Your task to perform on an android device: open wifi settings Image 0: 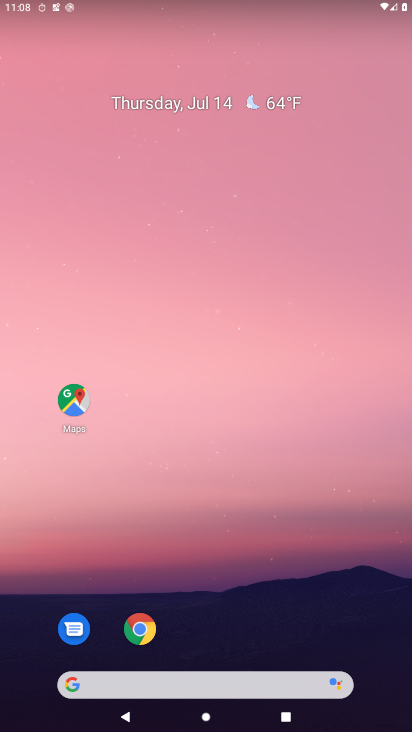
Step 0: drag from (249, 652) to (259, 222)
Your task to perform on an android device: open wifi settings Image 1: 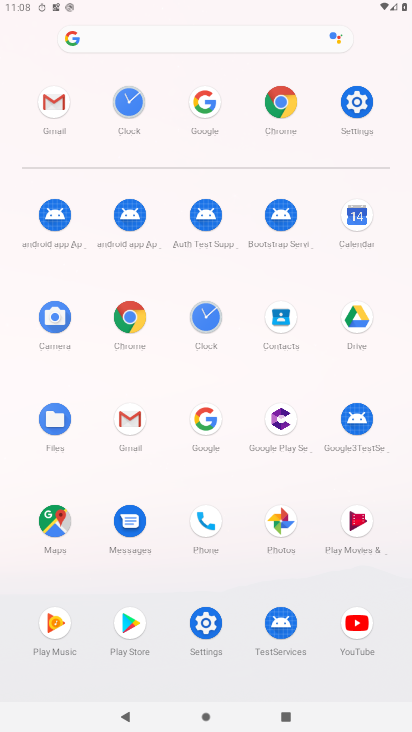
Step 1: click (363, 102)
Your task to perform on an android device: open wifi settings Image 2: 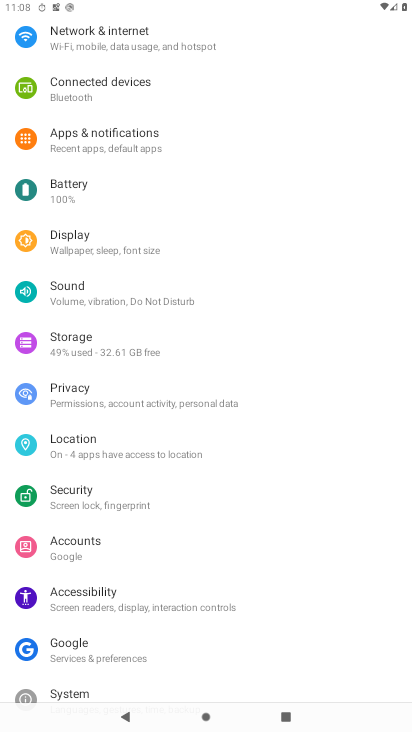
Step 2: click (92, 37)
Your task to perform on an android device: open wifi settings Image 3: 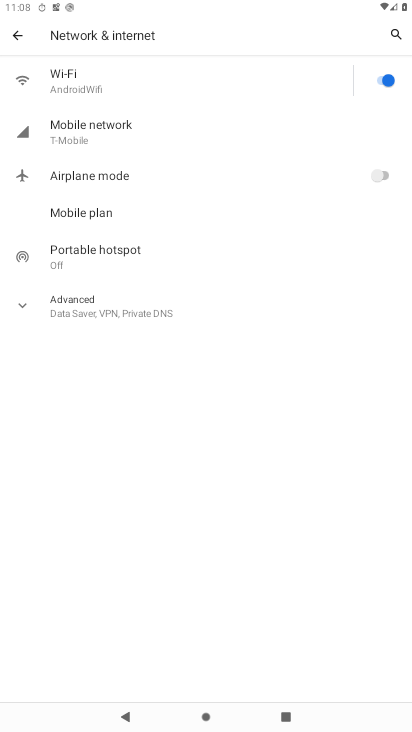
Step 3: click (116, 82)
Your task to perform on an android device: open wifi settings Image 4: 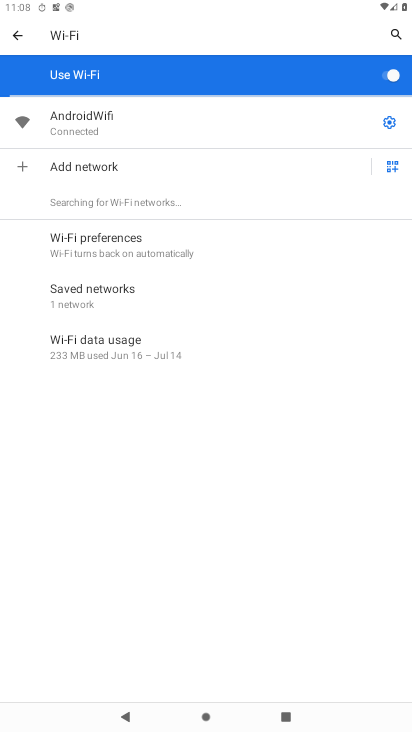
Step 4: click (395, 120)
Your task to perform on an android device: open wifi settings Image 5: 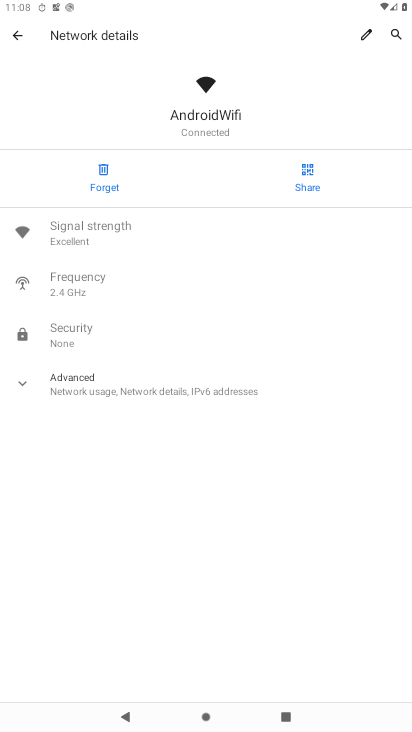
Step 5: click (136, 400)
Your task to perform on an android device: open wifi settings Image 6: 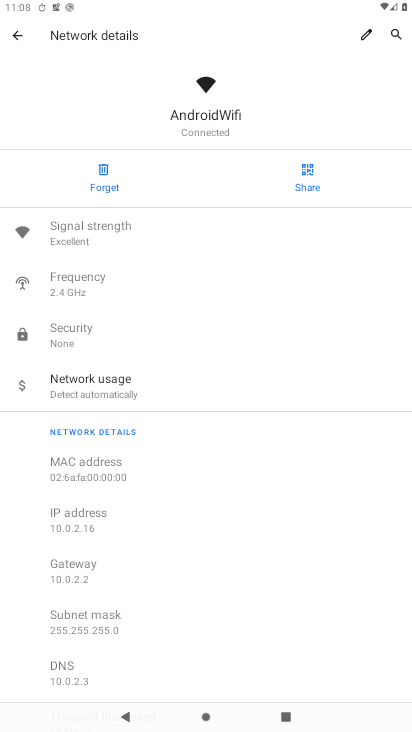
Step 6: task complete